Your task to perform on an android device: View the shopping cart on amazon. Image 0: 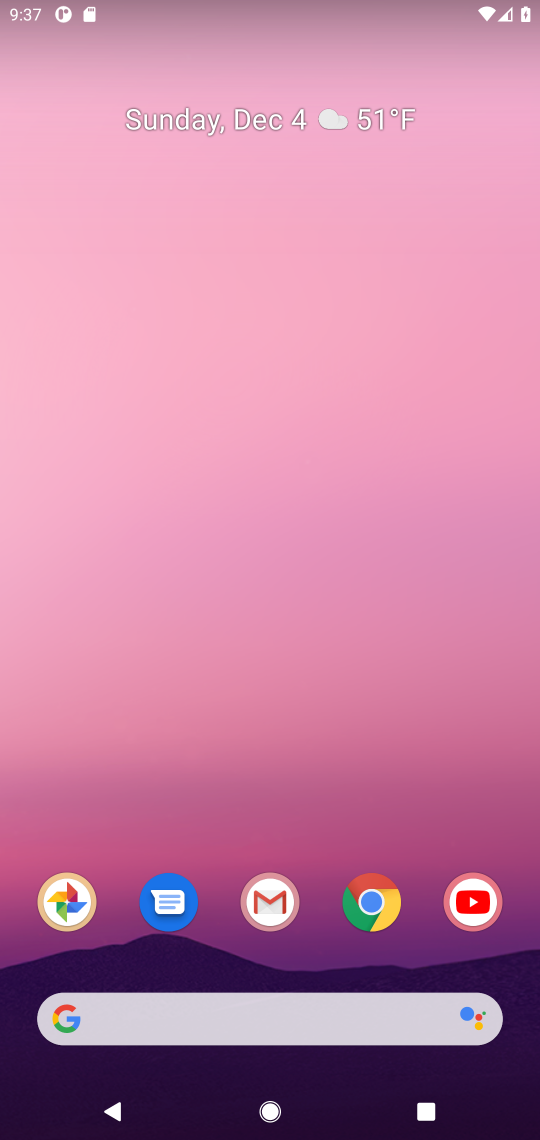
Step 0: click (366, 885)
Your task to perform on an android device: View the shopping cart on amazon. Image 1: 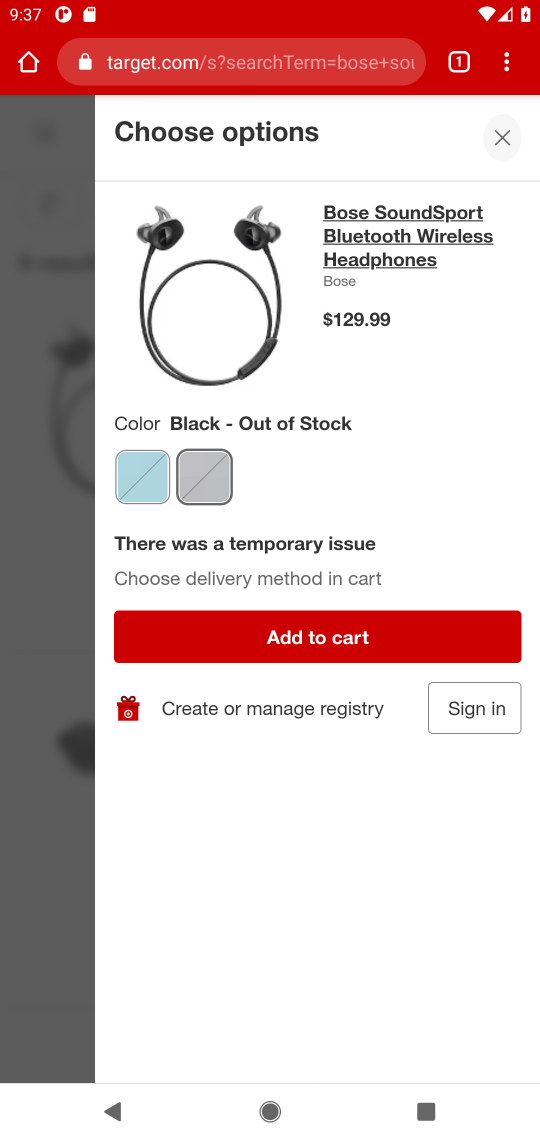
Step 1: task complete